Your task to perform on an android device: Open the contacts Image 0: 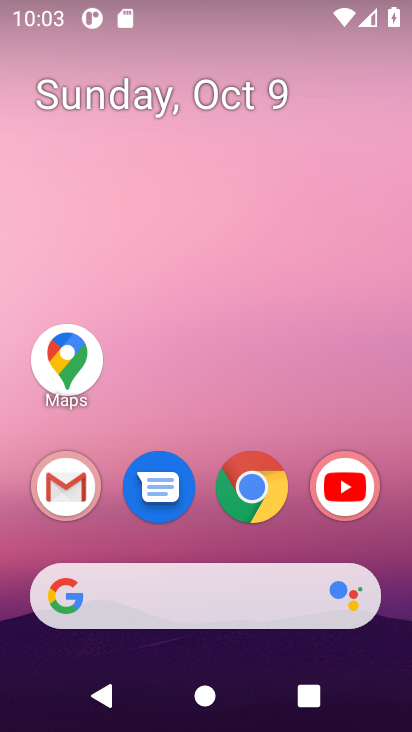
Step 0: click (262, 485)
Your task to perform on an android device: Open the contacts Image 1: 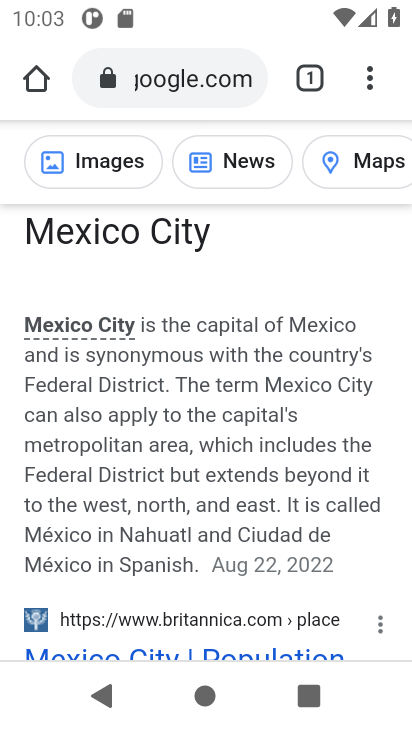
Step 1: press home button
Your task to perform on an android device: Open the contacts Image 2: 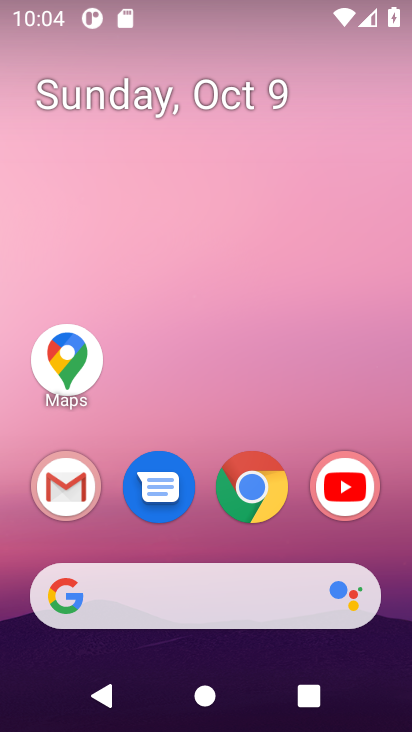
Step 2: drag from (246, 605) to (228, 154)
Your task to perform on an android device: Open the contacts Image 3: 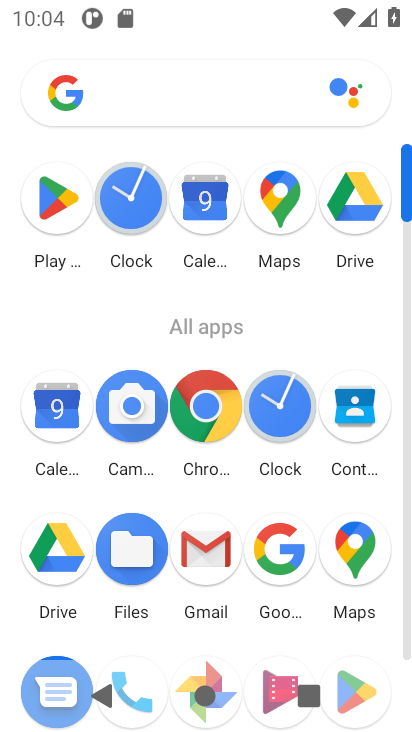
Step 3: click (352, 419)
Your task to perform on an android device: Open the contacts Image 4: 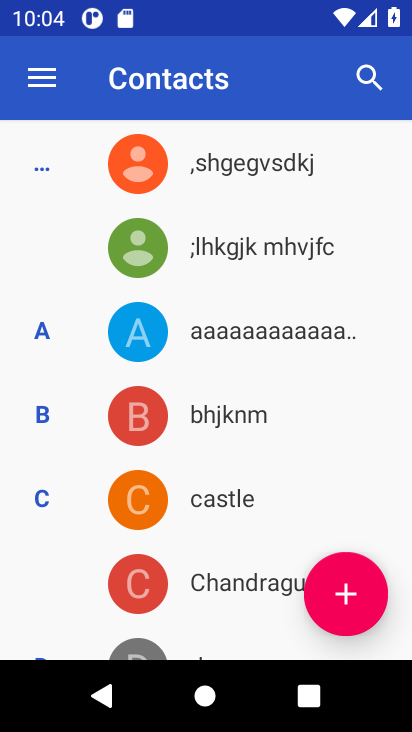
Step 4: task complete